Your task to perform on an android device: change your default location settings in chrome Image 0: 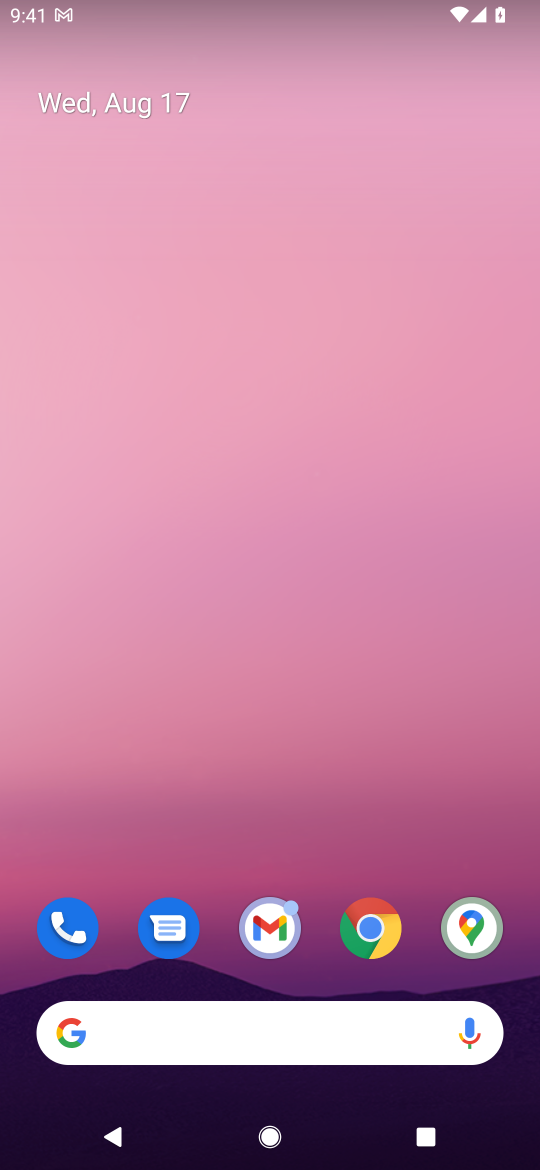
Step 0: click (379, 964)
Your task to perform on an android device: change your default location settings in chrome Image 1: 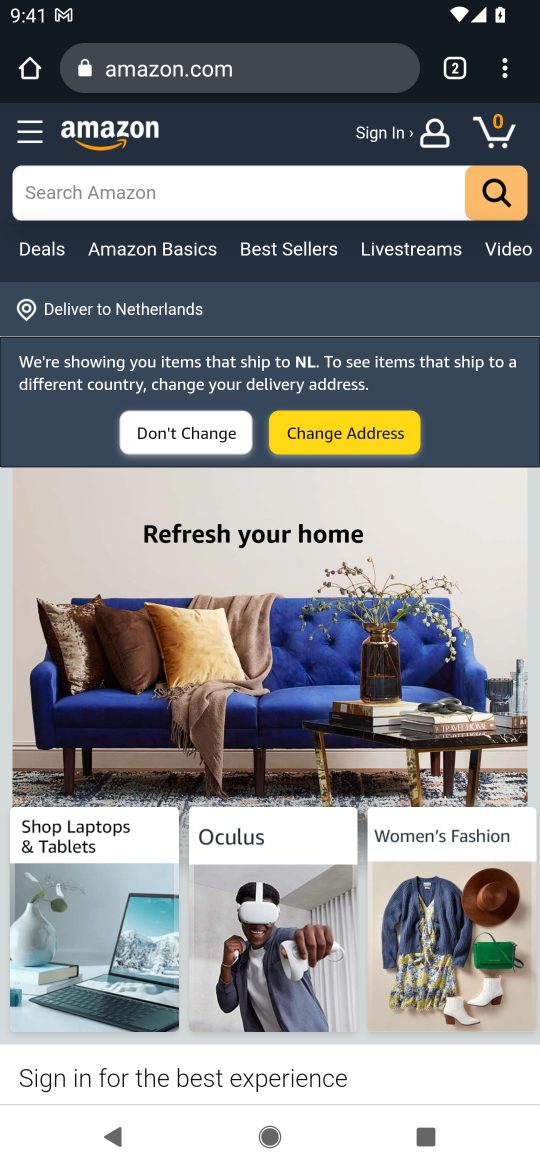
Step 1: click (511, 62)
Your task to perform on an android device: change your default location settings in chrome Image 2: 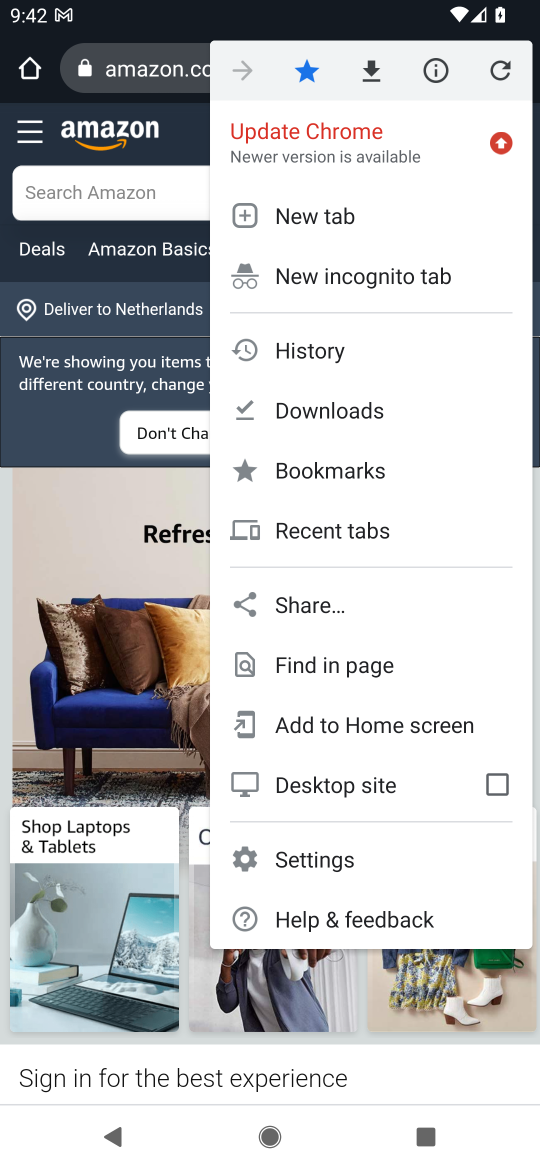
Step 2: click (368, 857)
Your task to perform on an android device: change your default location settings in chrome Image 3: 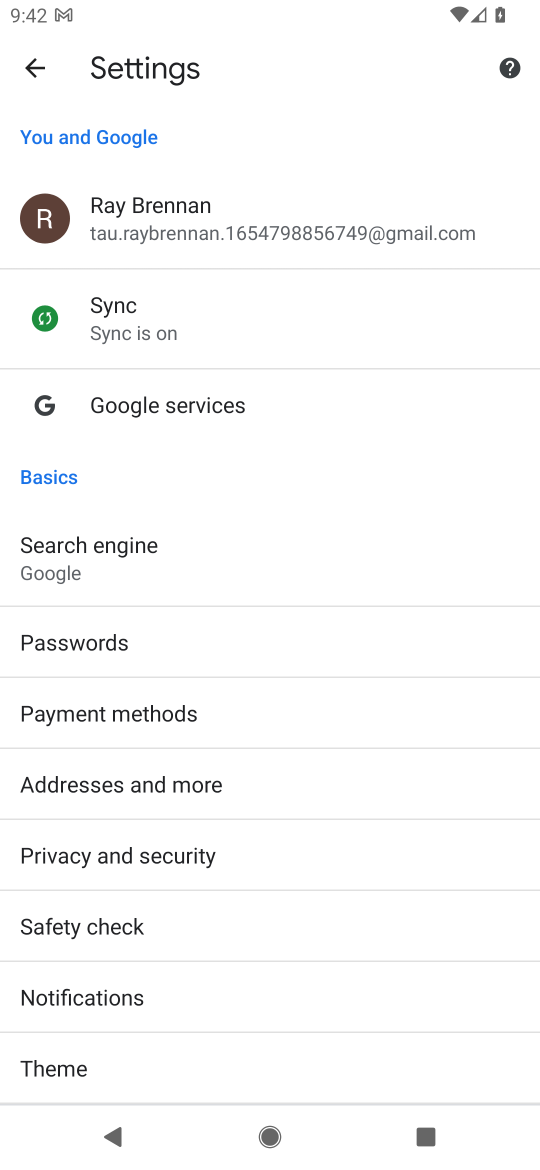
Step 3: drag from (279, 855) to (202, 468)
Your task to perform on an android device: change your default location settings in chrome Image 4: 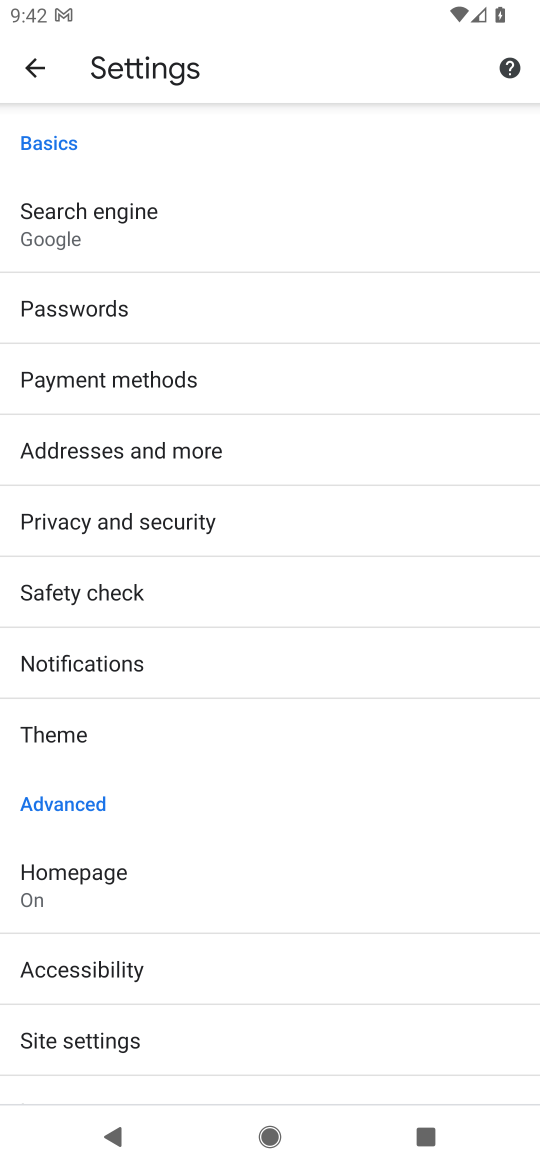
Step 4: click (332, 1030)
Your task to perform on an android device: change your default location settings in chrome Image 5: 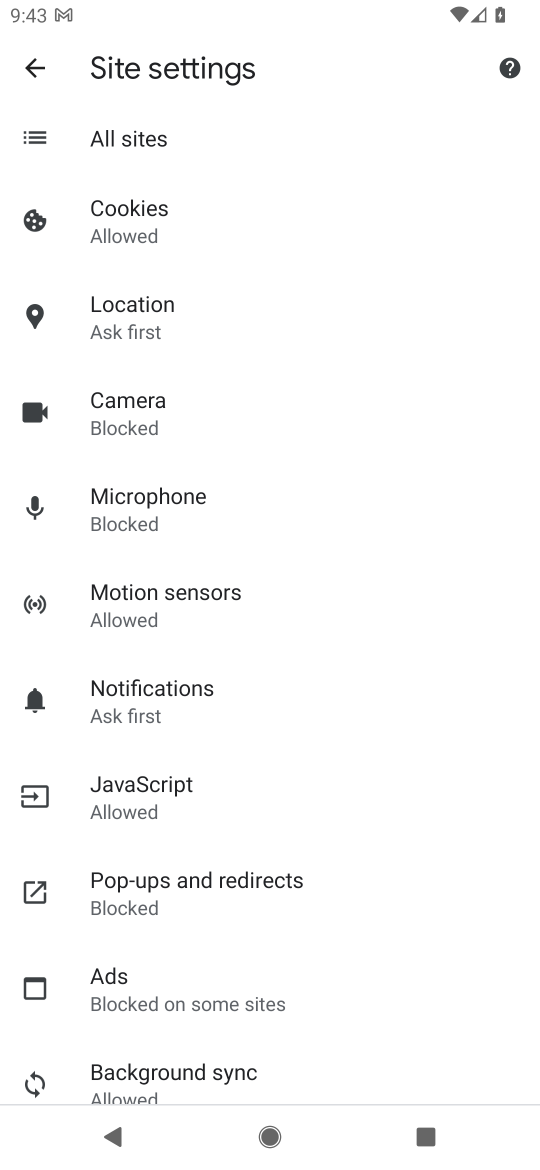
Step 5: click (184, 294)
Your task to perform on an android device: change your default location settings in chrome Image 6: 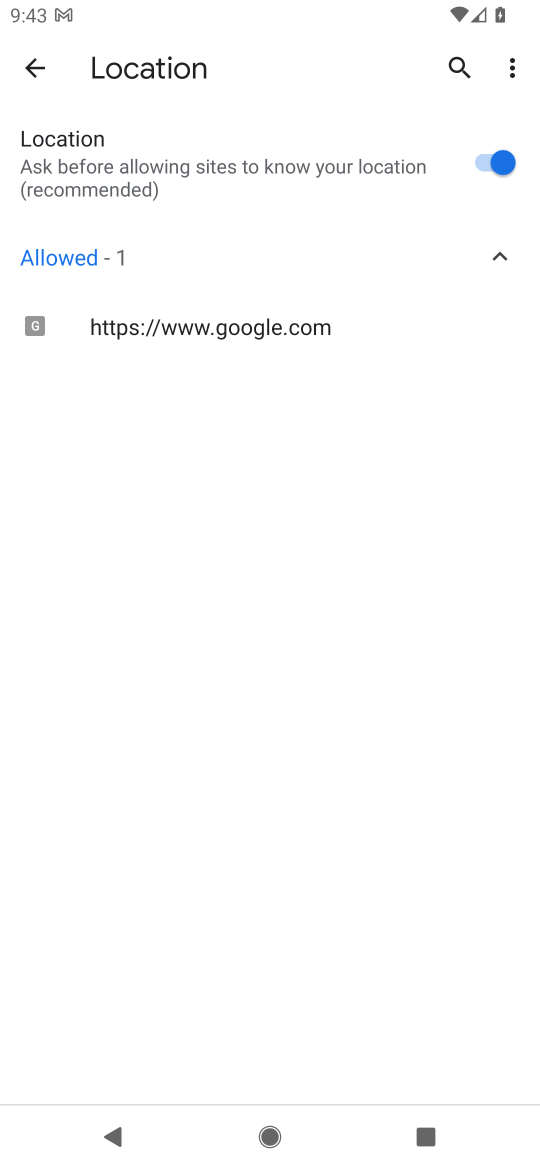
Step 6: click (497, 167)
Your task to perform on an android device: change your default location settings in chrome Image 7: 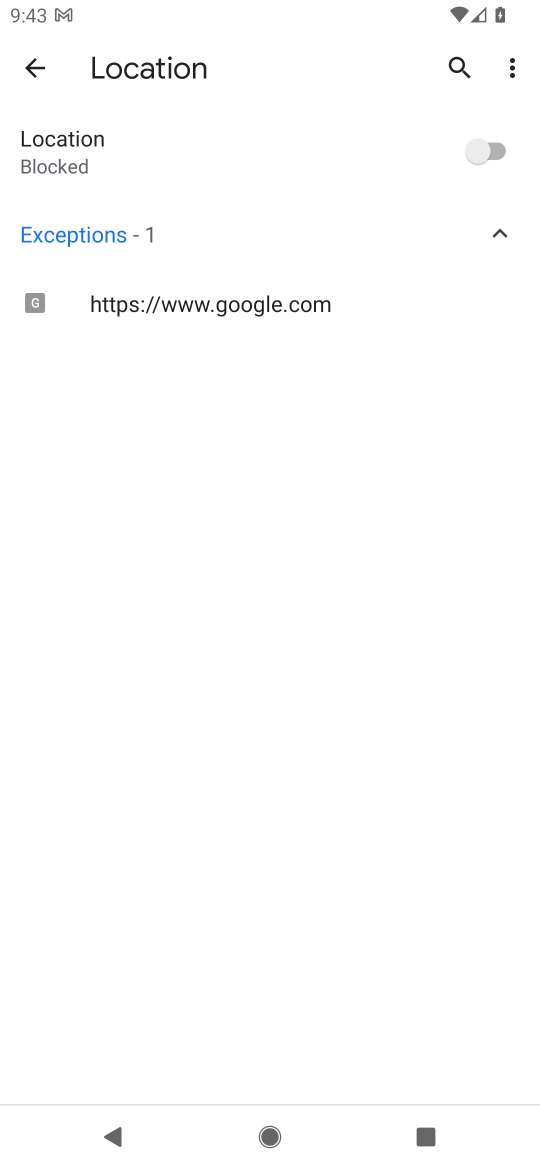
Step 7: task complete